Your task to perform on an android device: turn off data saver in the chrome app Image 0: 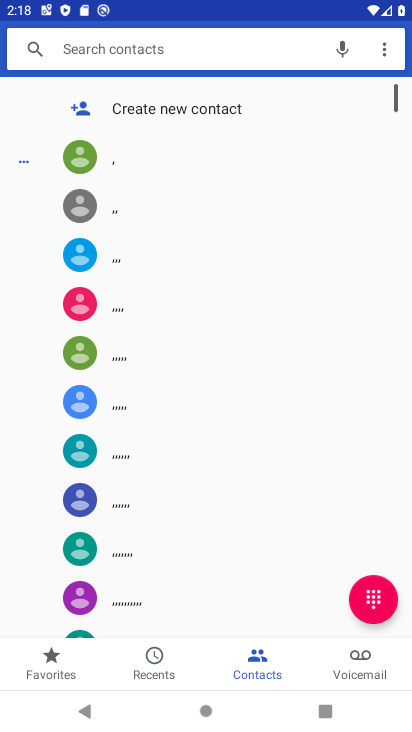
Step 0: press home button
Your task to perform on an android device: turn off data saver in the chrome app Image 1: 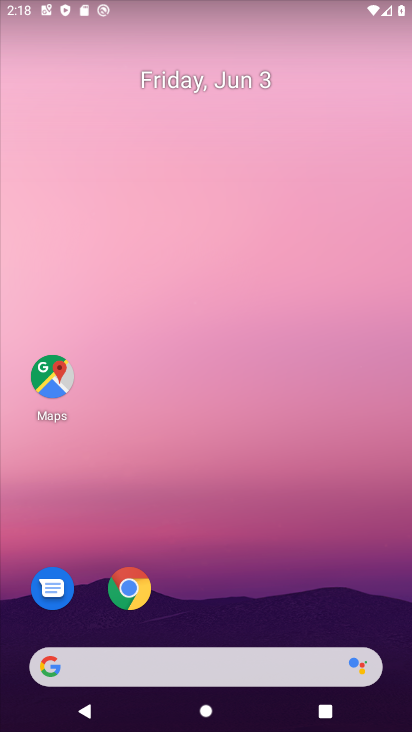
Step 1: drag from (278, 573) to (250, 163)
Your task to perform on an android device: turn off data saver in the chrome app Image 2: 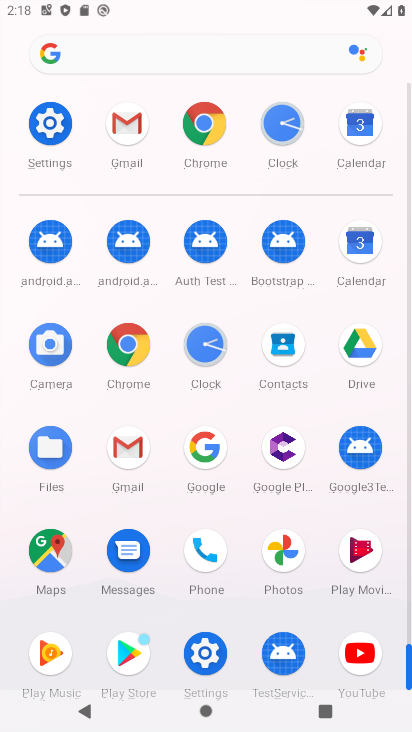
Step 2: click (129, 361)
Your task to perform on an android device: turn off data saver in the chrome app Image 3: 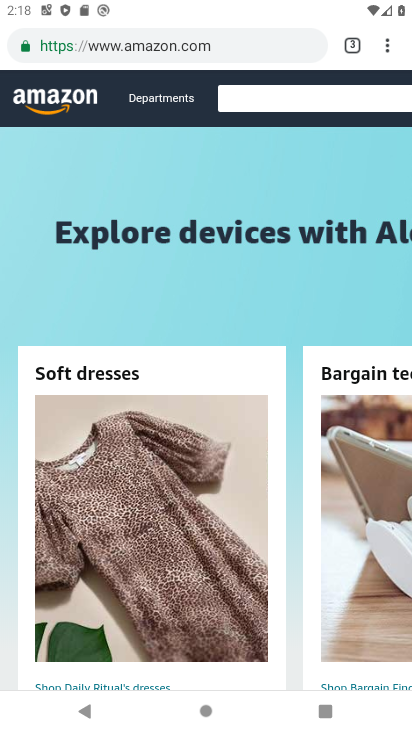
Step 3: click (387, 47)
Your task to perform on an android device: turn off data saver in the chrome app Image 4: 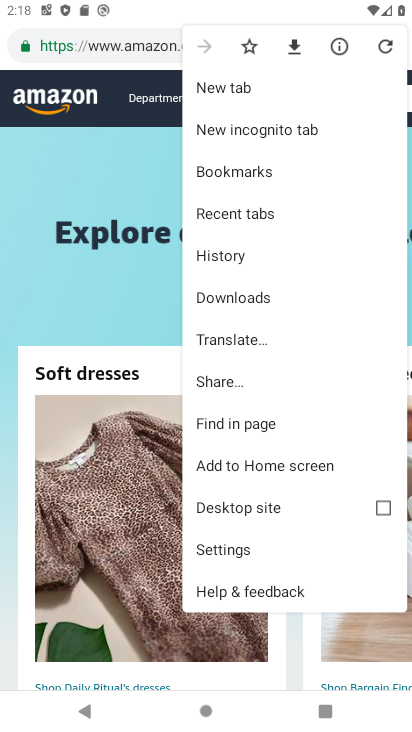
Step 4: click (257, 554)
Your task to perform on an android device: turn off data saver in the chrome app Image 5: 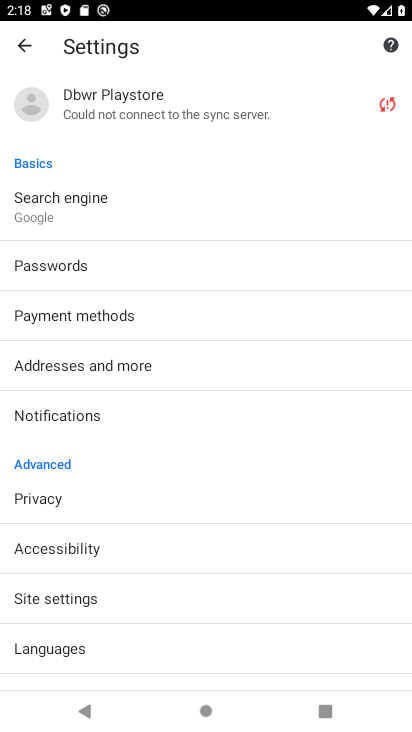
Step 5: drag from (133, 610) to (171, 308)
Your task to perform on an android device: turn off data saver in the chrome app Image 6: 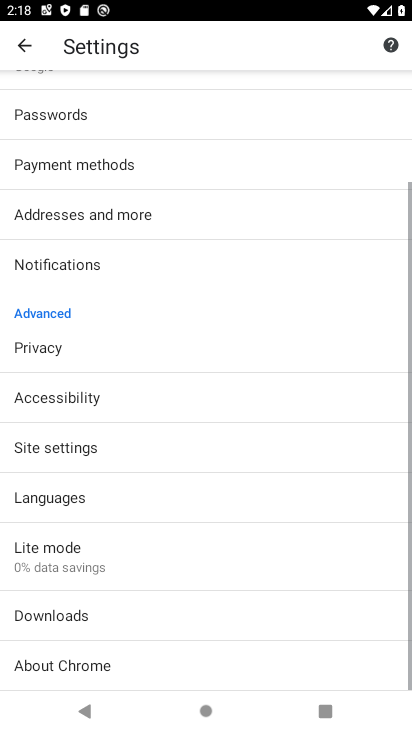
Step 6: click (93, 568)
Your task to perform on an android device: turn off data saver in the chrome app Image 7: 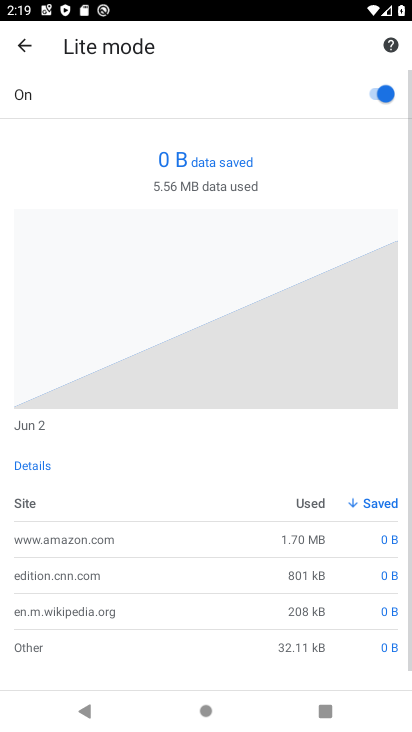
Step 7: click (377, 99)
Your task to perform on an android device: turn off data saver in the chrome app Image 8: 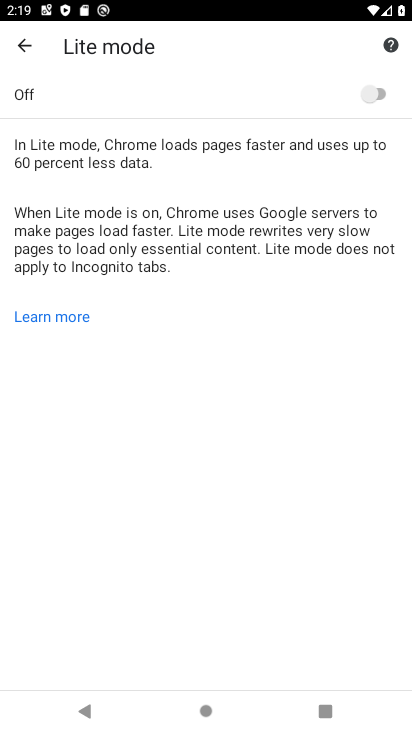
Step 8: task complete